Your task to perform on an android device: turn on improve location accuracy Image 0: 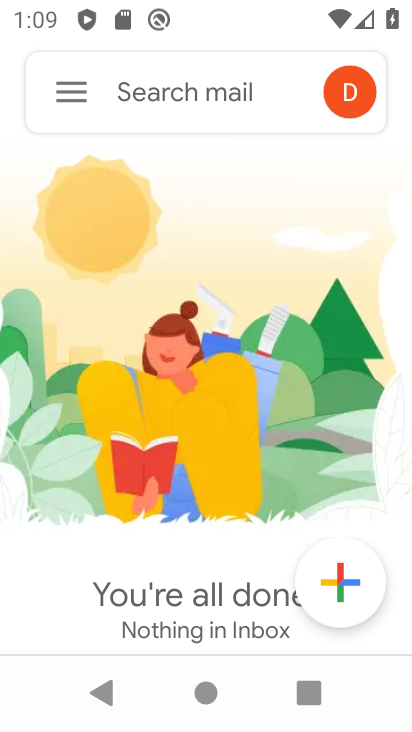
Step 0: press home button
Your task to perform on an android device: turn on improve location accuracy Image 1: 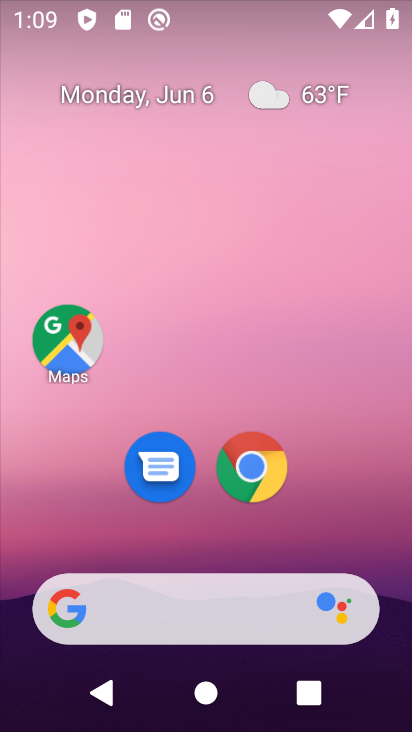
Step 1: drag from (391, 614) to (274, 96)
Your task to perform on an android device: turn on improve location accuracy Image 2: 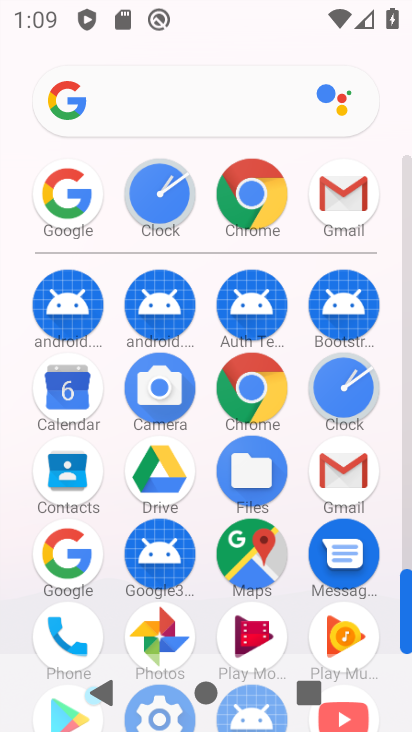
Step 2: drag from (296, 637) to (307, 224)
Your task to perform on an android device: turn on improve location accuracy Image 3: 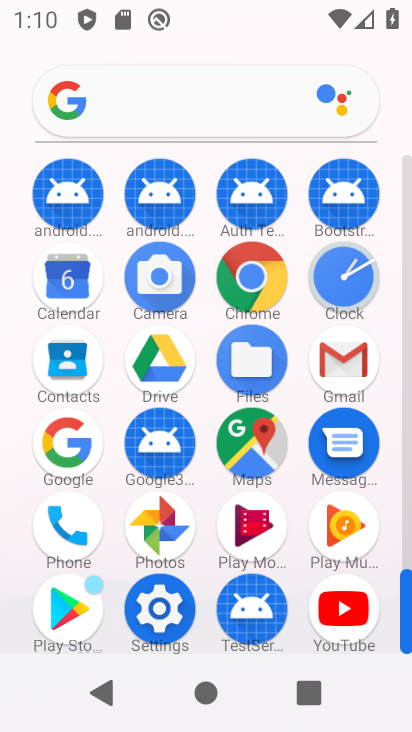
Step 3: click (165, 605)
Your task to perform on an android device: turn on improve location accuracy Image 4: 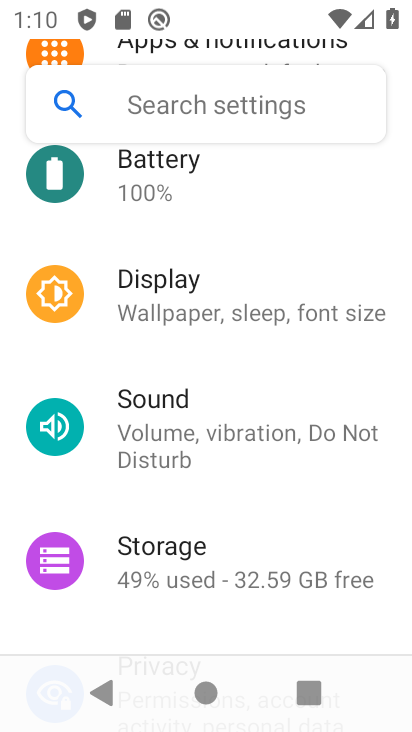
Step 4: click (205, 618)
Your task to perform on an android device: turn on improve location accuracy Image 5: 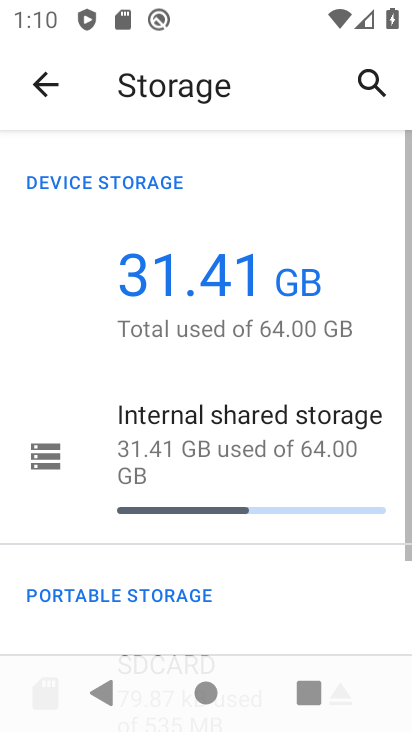
Step 5: press back button
Your task to perform on an android device: turn on improve location accuracy Image 6: 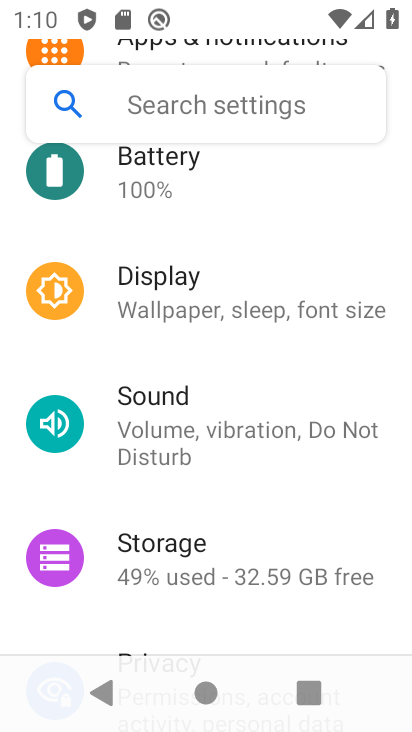
Step 6: drag from (231, 563) to (211, 150)
Your task to perform on an android device: turn on improve location accuracy Image 7: 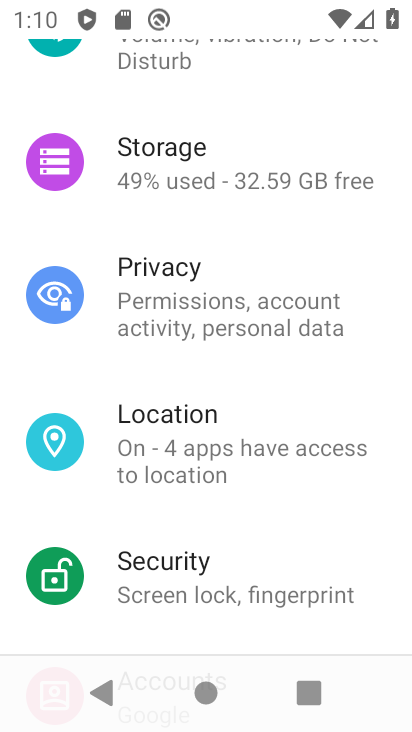
Step 7: click (186, 443)
Your task to perform on an android device: turn on improve location accuracy Image 8: 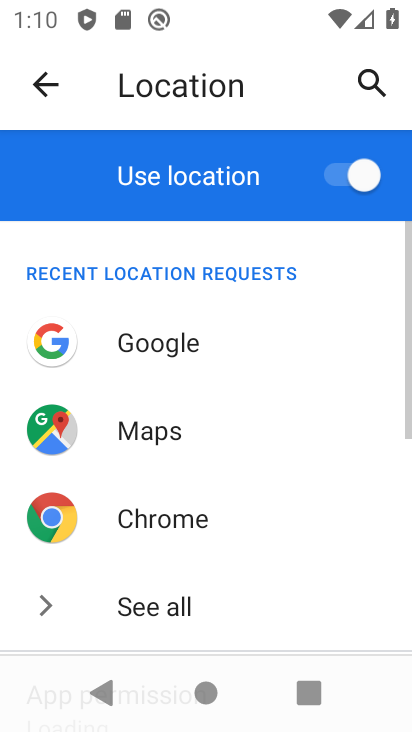
Step 8: drag from (215, 574) to (185, 146)
Your task to perform on an android device: turn on improve location accuracy Image 9: 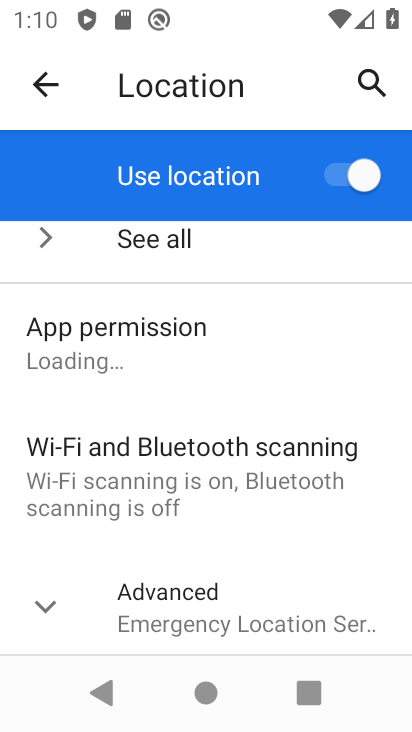
Step 9: click (189, 607)
Your task to perform on an android device: turn on improve location accuracy Image 10: 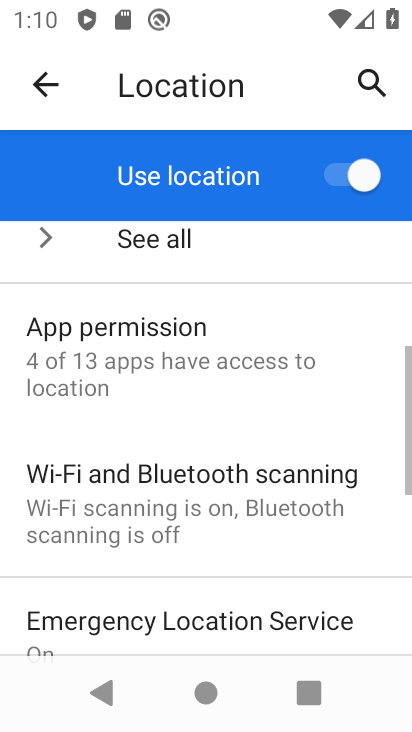
Step 10: drag from (189, 607) to (191, 233)
Your task to perform on an android device: turn on improve location accuracy Image 11: 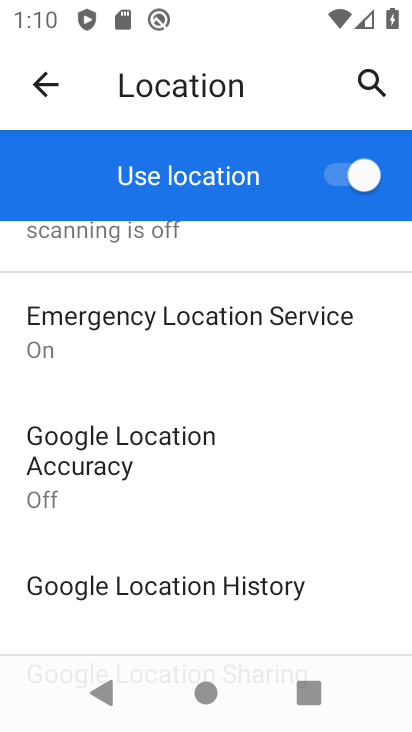
Step 11: drag from (193, 580) to (216, 276)
Your task to perform on an android device: turn on improve location accuracy Image 12: 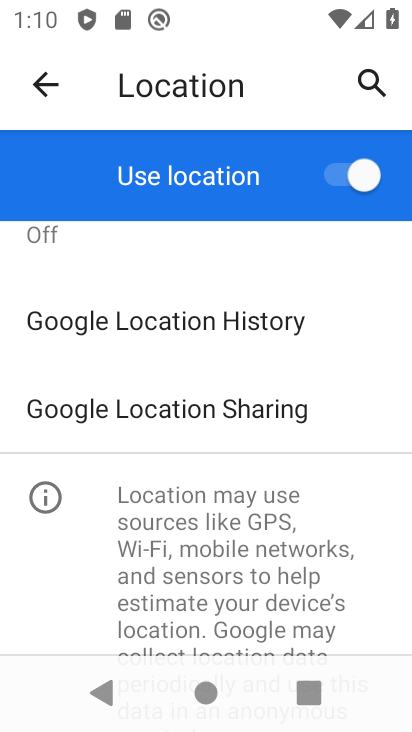
Step 12: click (25, 254)
Your task to perform on an android device: turn on improve location accuracy Image 13: 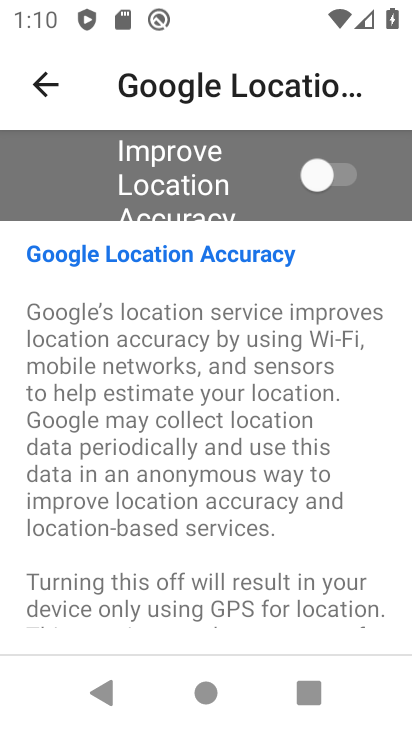
Step 13: click (351, 188)
Your task to perform on an android device: turn on improve location accuracy Image 14: 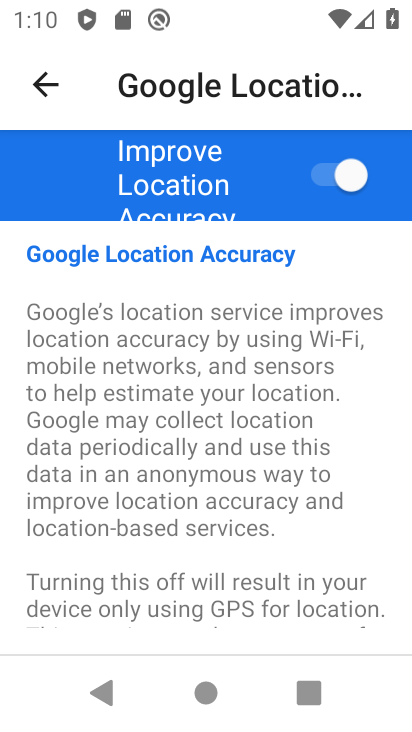
Step 14: task complete